Your task to perform on an android device: Go to notification settings Image 0: 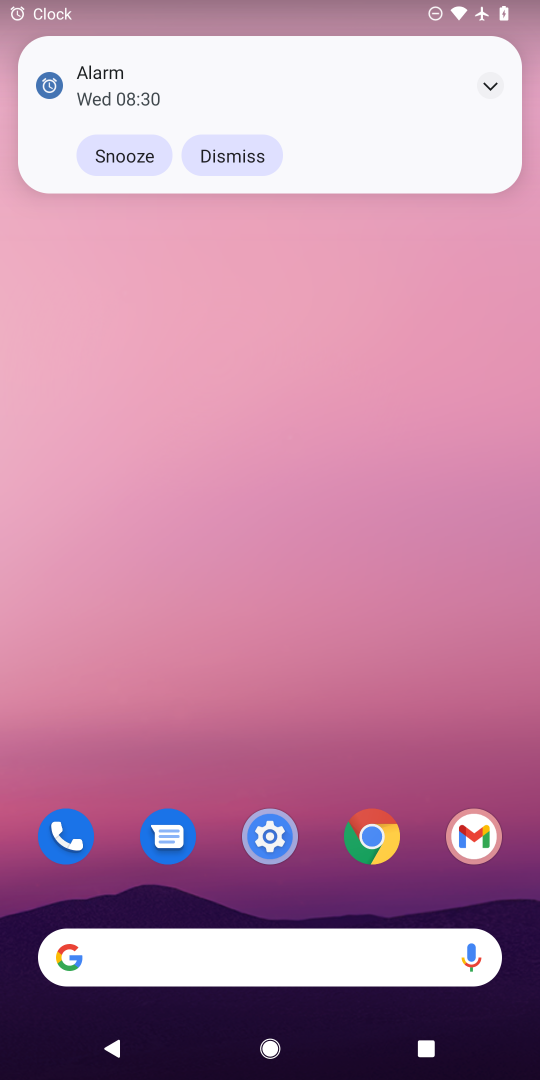
Step 0: click (141, 719)
Your task to perform on an android device: Go to notification settings Image 1: 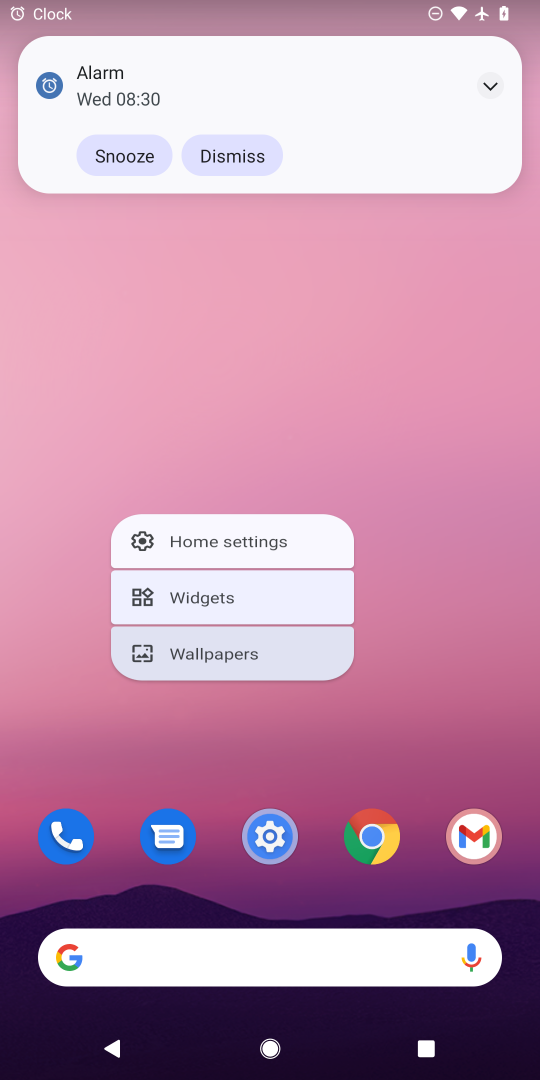
Step 1: drag from (253, 752) to (312, 415)
Your task to perform on an android device: Go to notification settings Image 2: 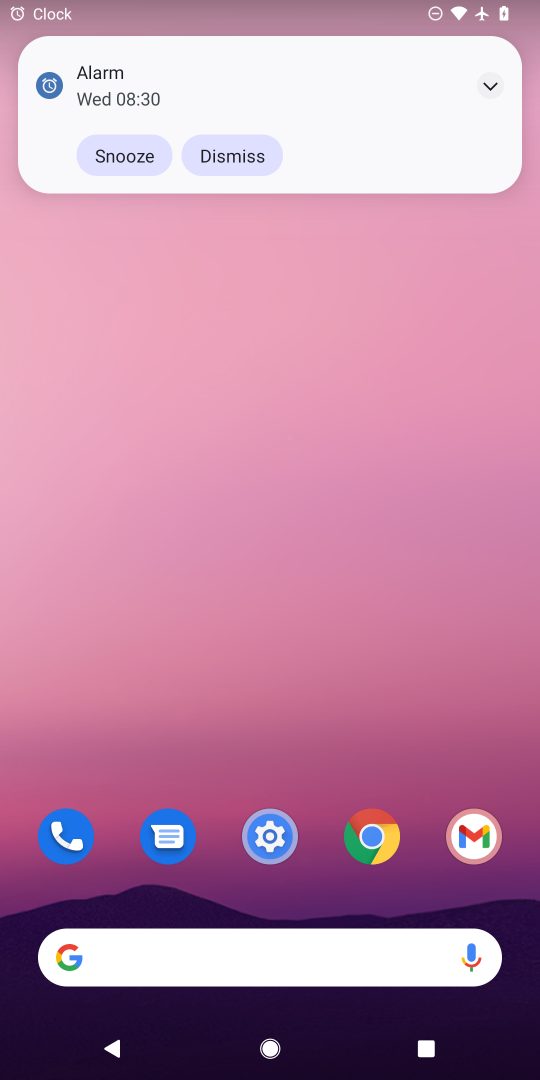
Step 2: drag from (307, 912) to (360, 209)
Your task to perform on an android device: Go to notification settings Image 3: 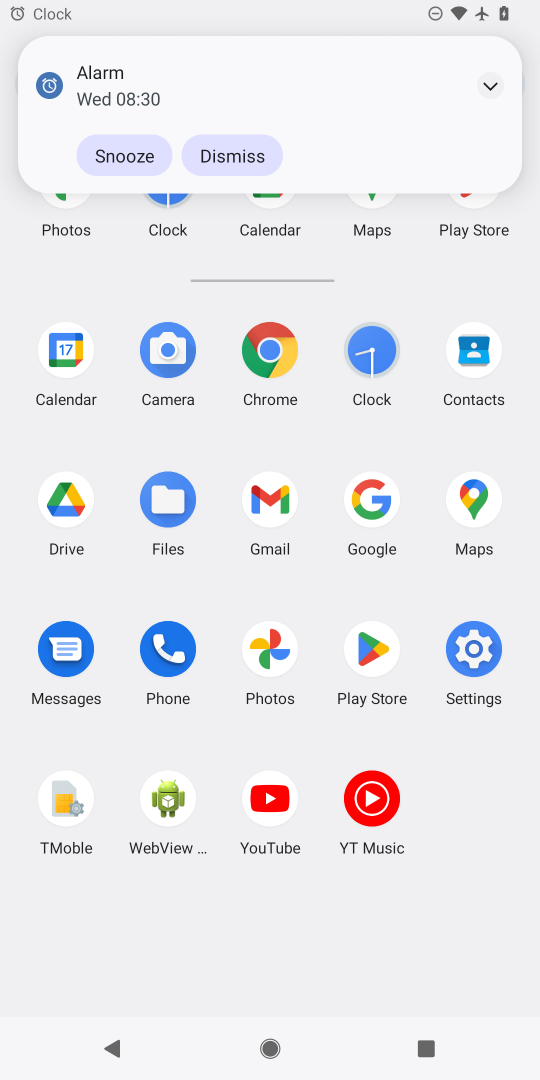
Step 3: click (458, 635)
Your task to perform on an android device: Go to notification settings Image 4: 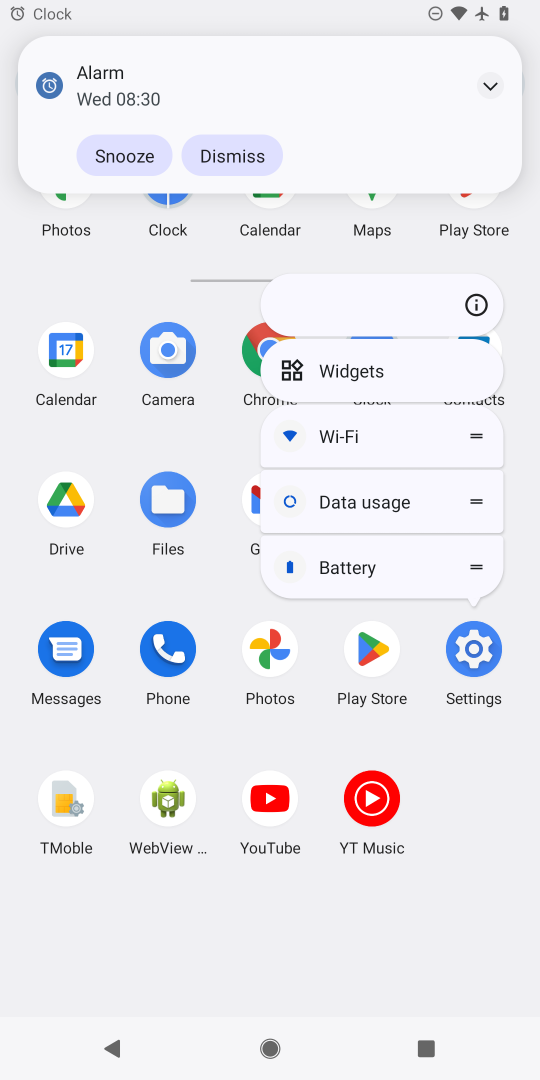
Step 4: click (461, 632)
Your task to perform on an android device: Go to notification settings Image 5: 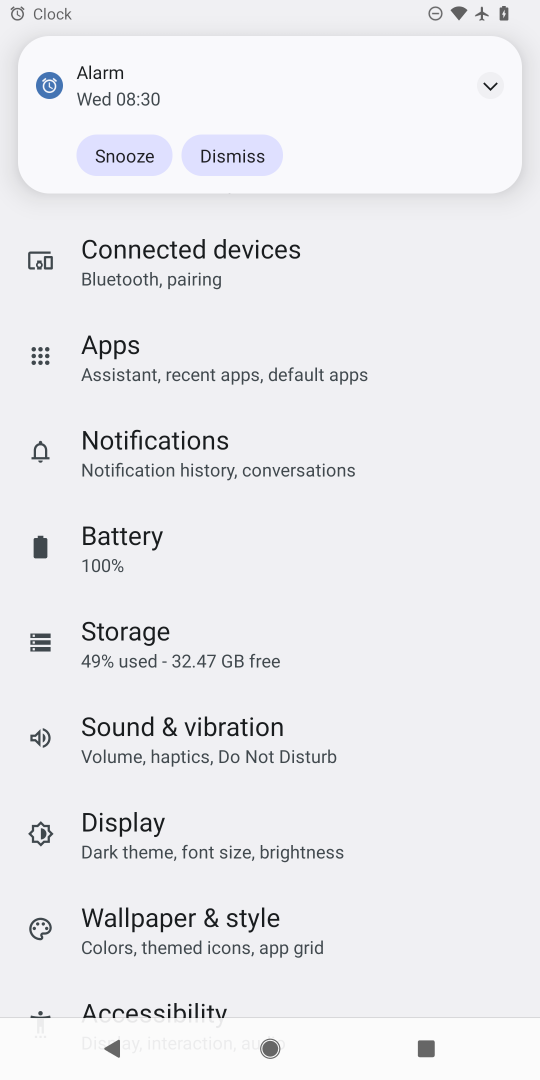
Step 5: click (160, 457)
Your task to perform on an android device: Go to notification settings Image 6: 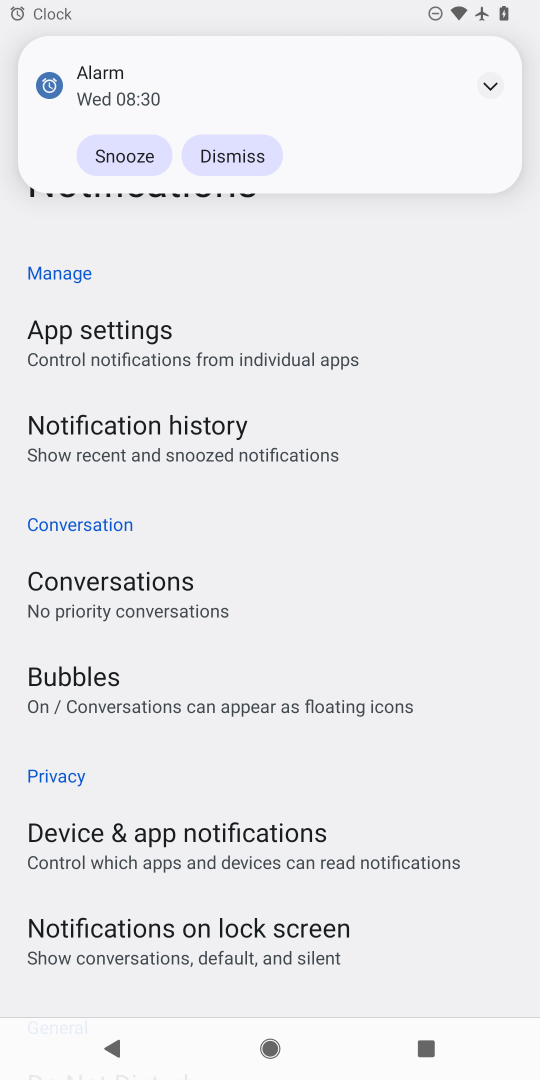
Step 6: task complete